Your task to perform on an android device: Search for flights from NYC to Mexico city Image 0: 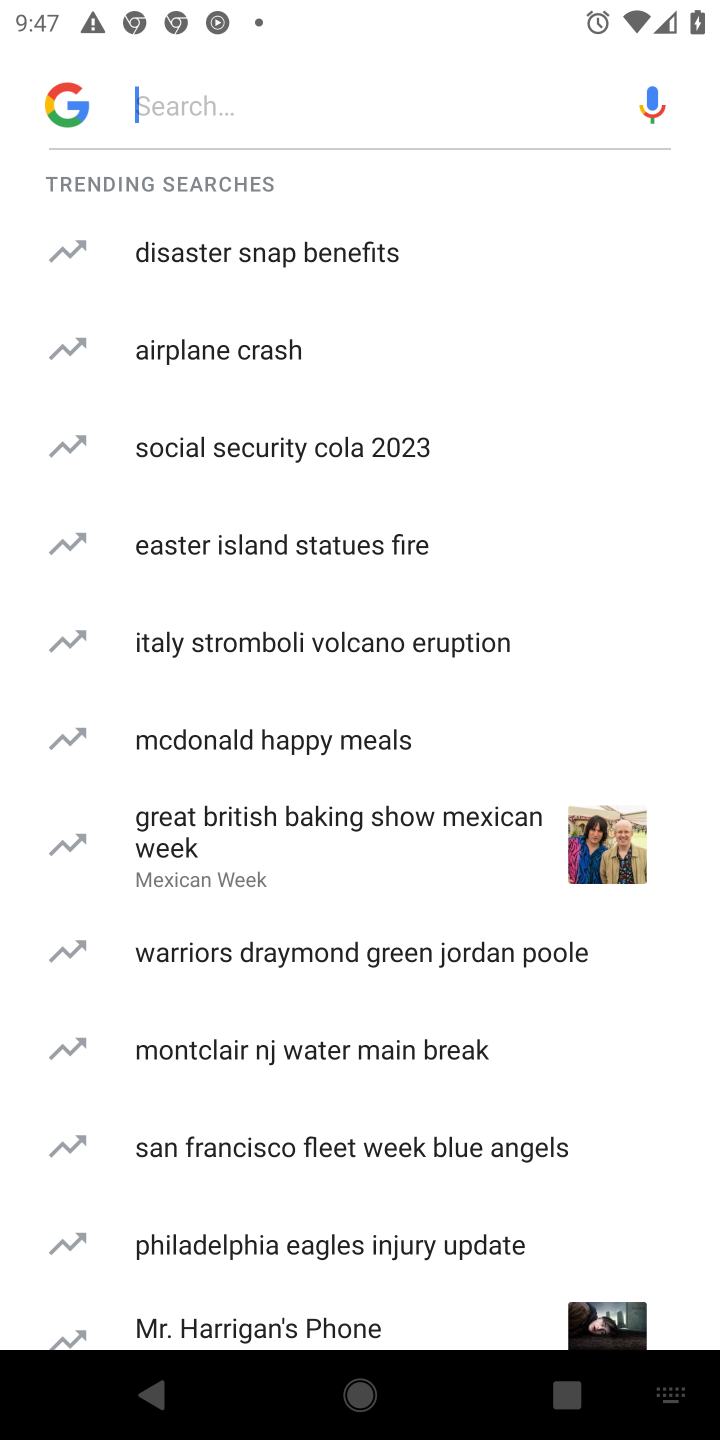
Step 0: click (430, 112)
Your task to perform on an android device: Search for flights from NYC to Mexico city Image 1: 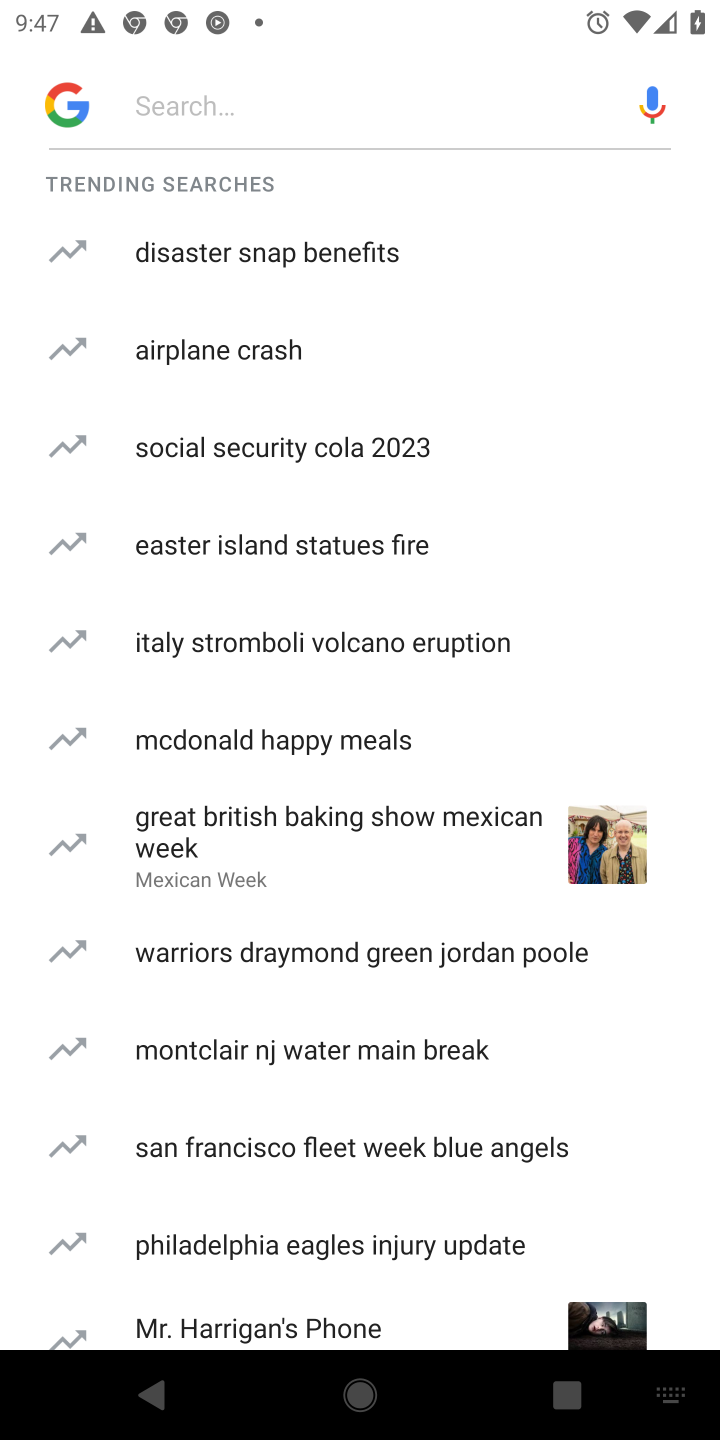
Step 1: click (300, 89)
Your task to perform on an android device: Search for flights from NYC to Mexico city Image 2: 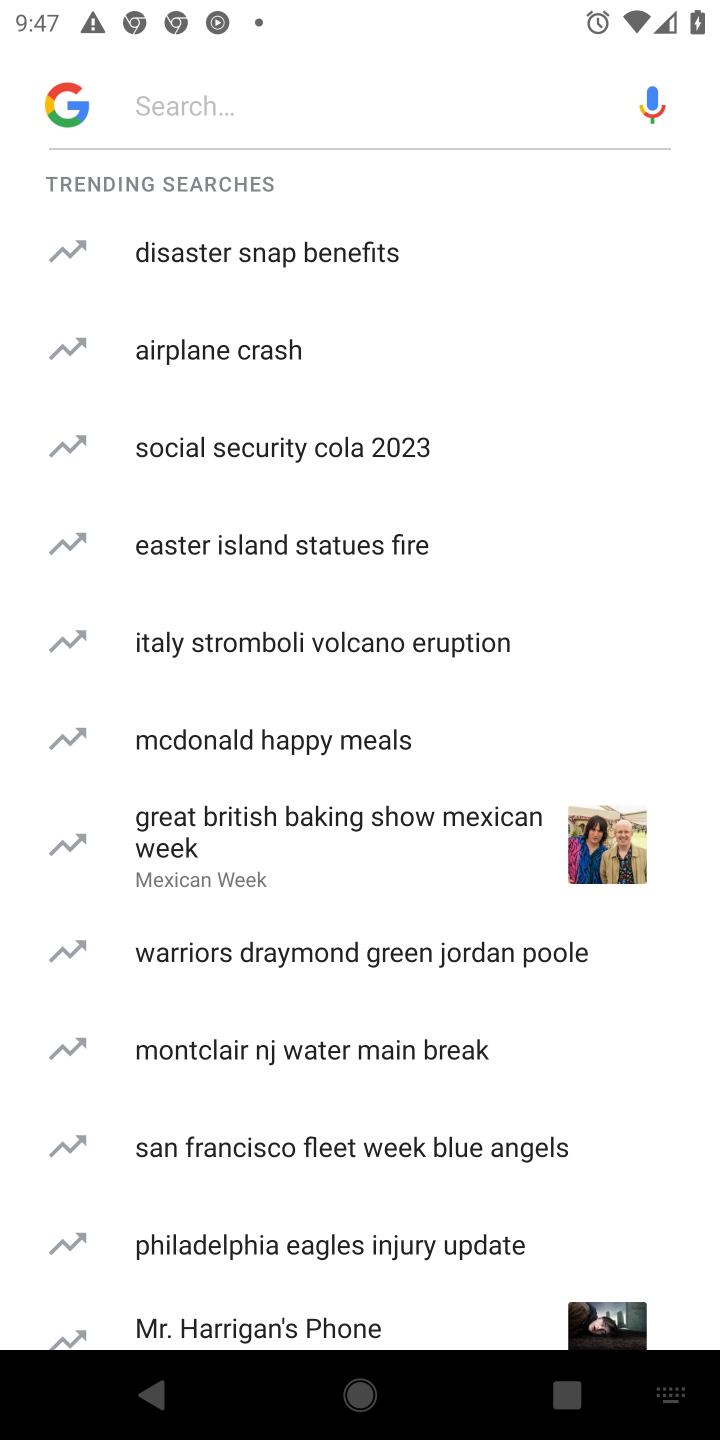
Step 2: type "Search for flights from NYC to Mexico city "
Your task to perform on an android device: Search for flights from NYC to Mexico city Image 3: 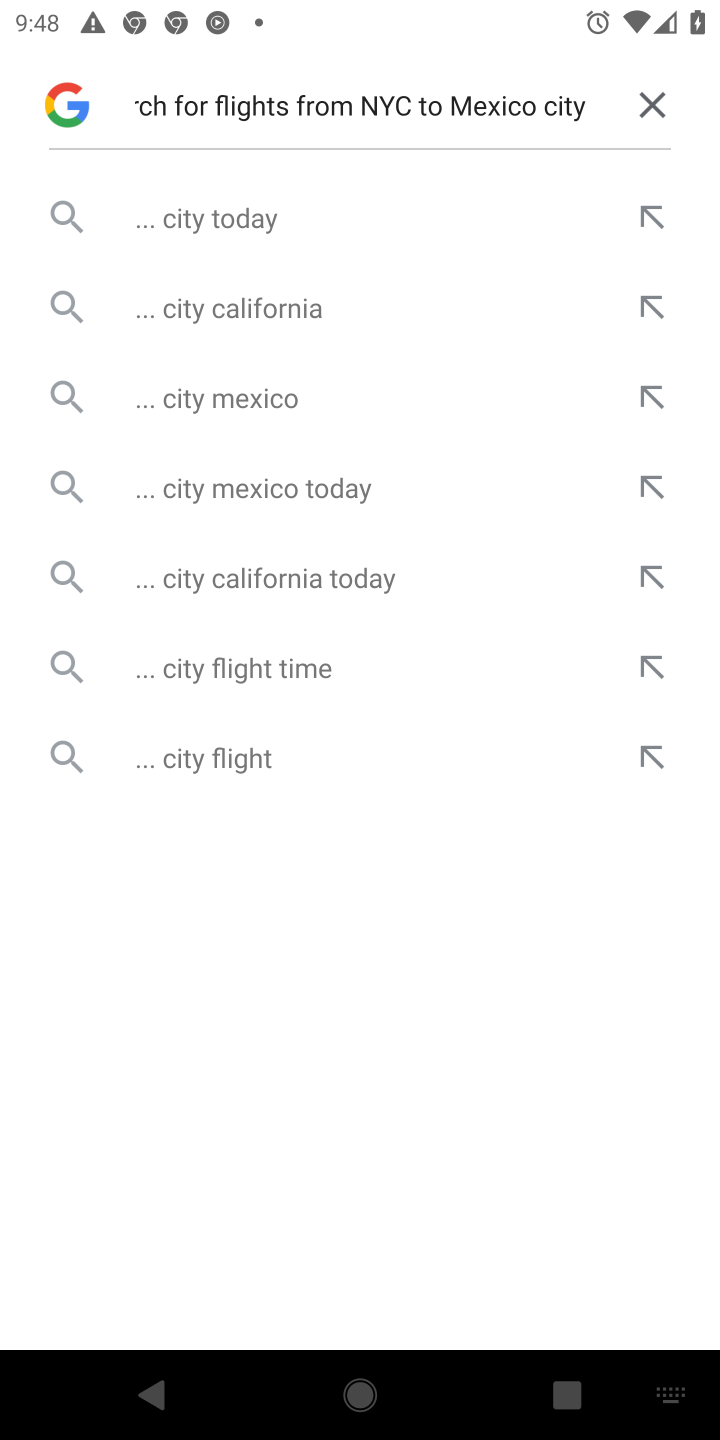
Step 3: click (258, 396)
Your task to perform on an android device: Search for flights from NYC to Mexico city Image 4: 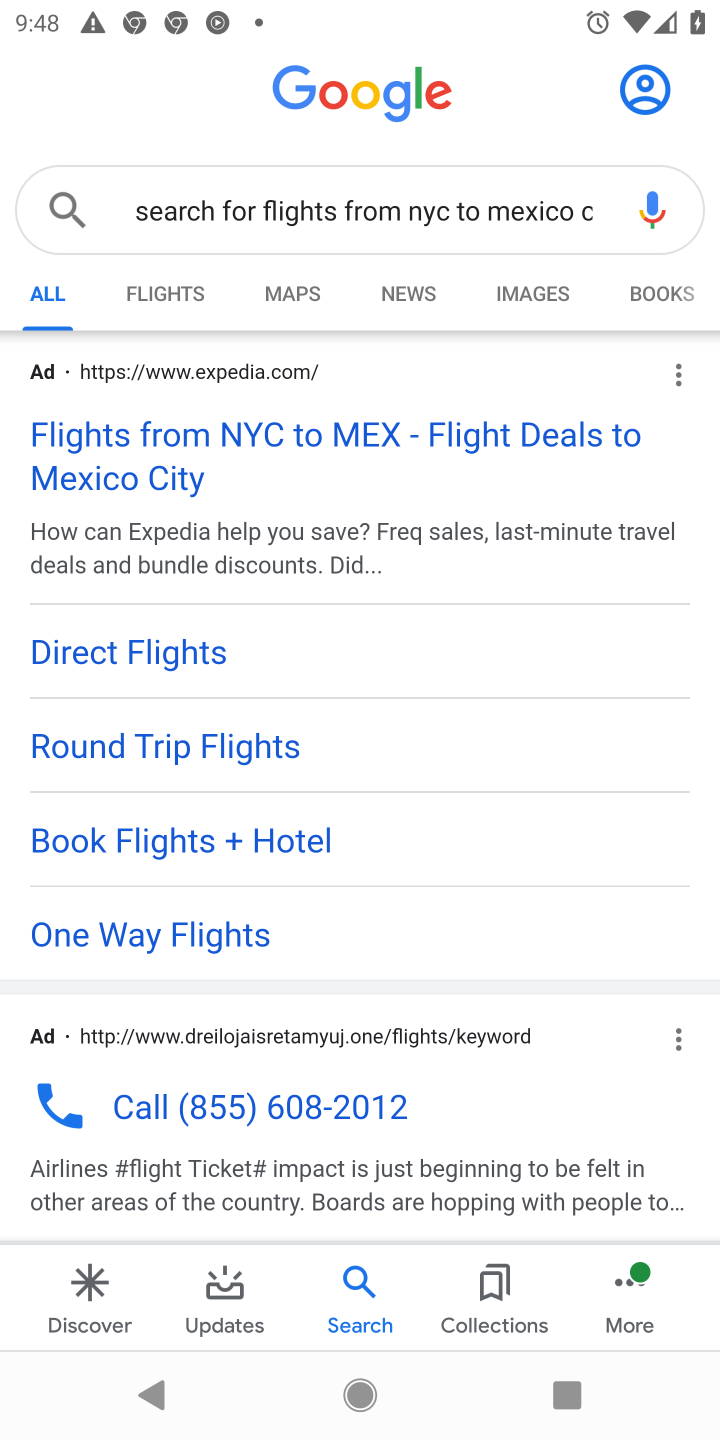
Step 4: click (143, 486)
Your task to perform on an android device: Search for flights from NYC to Mexico city Image 5: 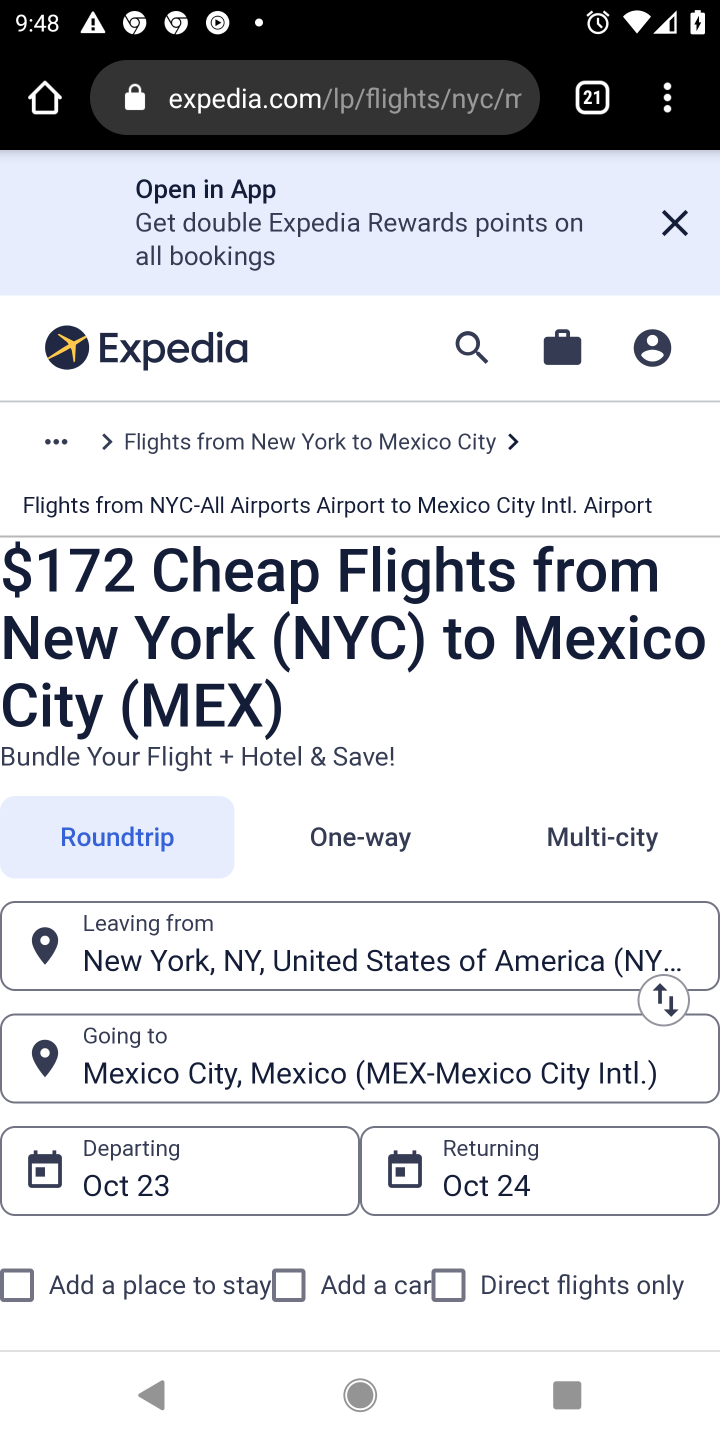
Step 5: task complete